Your task to perform on an android device: Check the news Image 0: 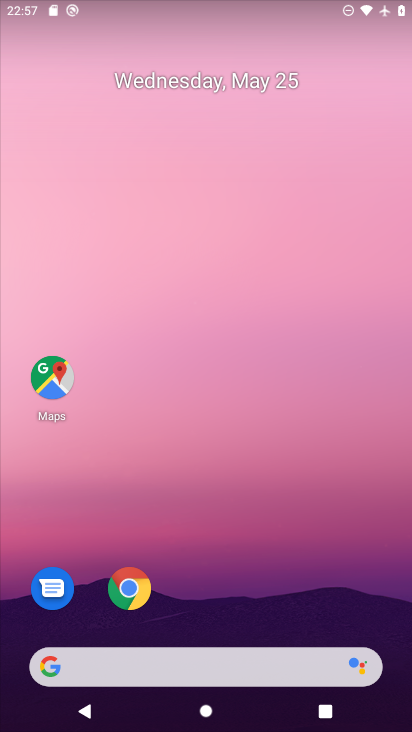
Step 0: click (136, 585)
Your task to perform on an android device: Check the news Image 1: 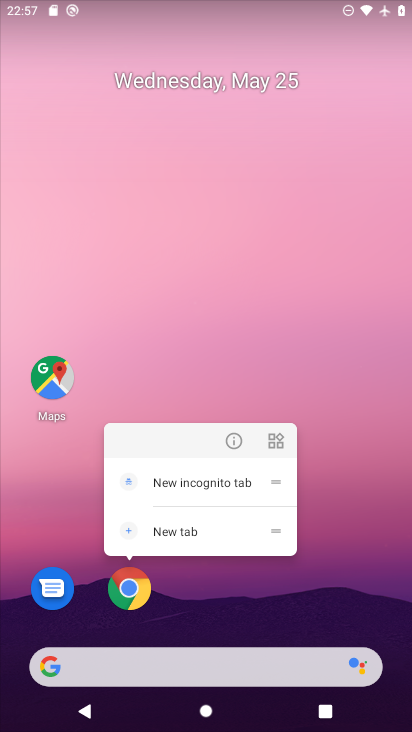
Step 1: click (129, 590)
Your task to perform on an android device: Check the news Image 2: 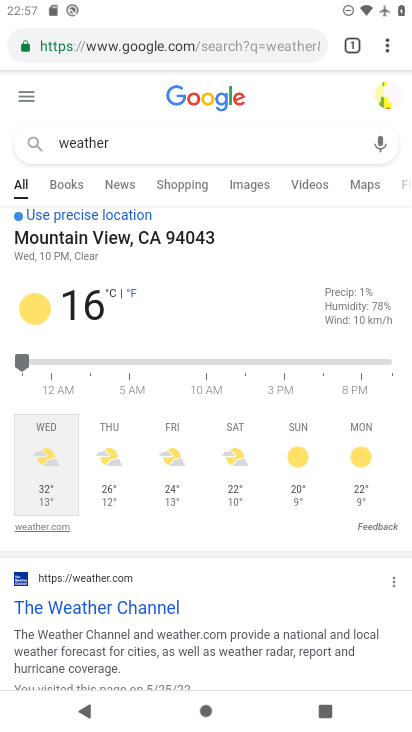
Step 2: click (159, 49)
Your task to perform on an android device: Check the news Image 3: 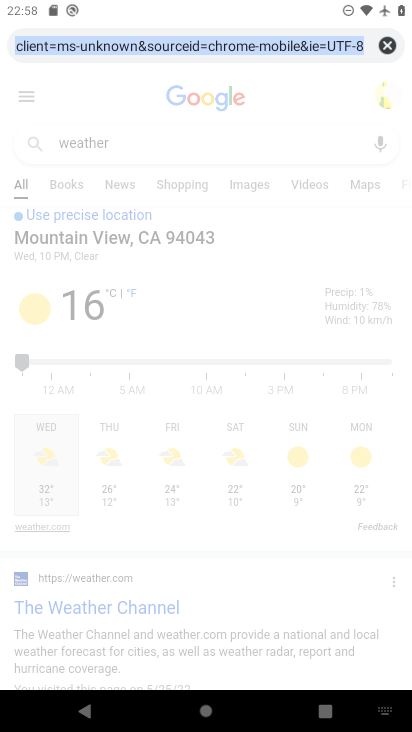
Step 3: type "news"
Your task to perform on an android device: Check the news Image 4: 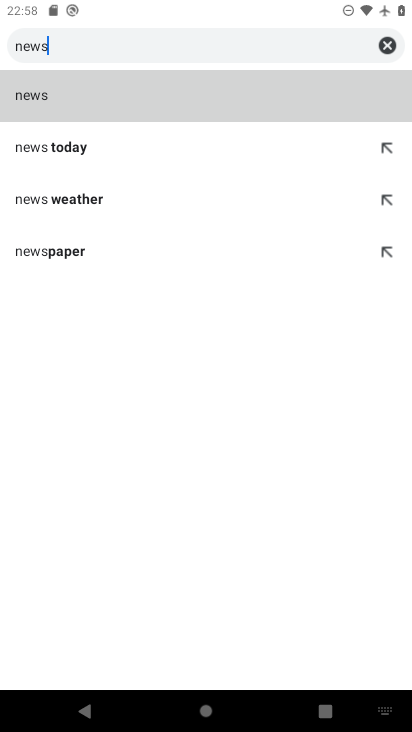
Step 4: click (36, 70)
Your task to perform on an android device: Check the news Image 5: 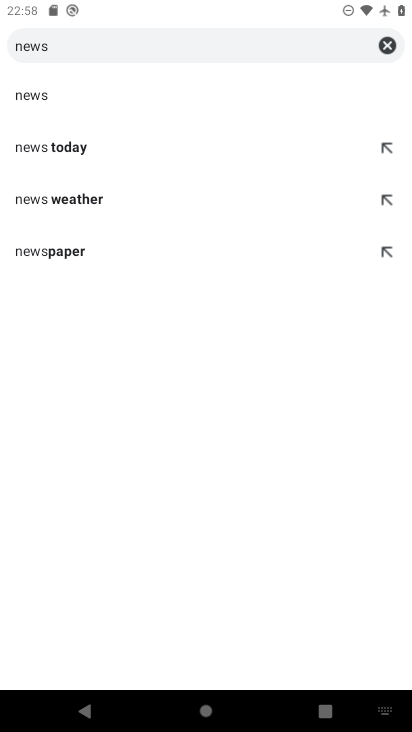
Step 5: click (20, 87)
Your task to perform on an android device: Check the news Image 6: 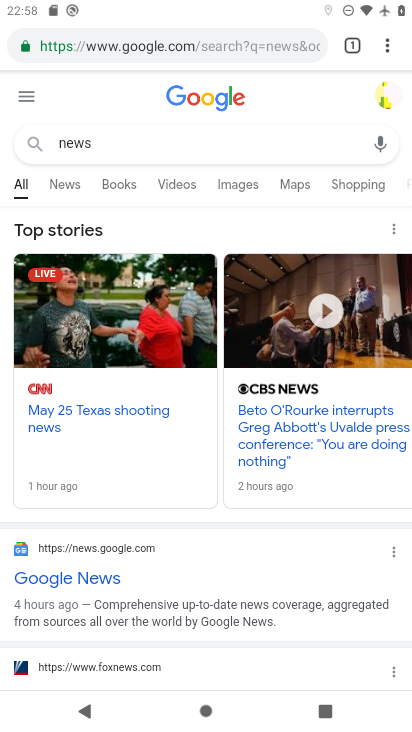
Step 6: click (70, 186)
Your task to perform on an android device: Check the news Image 7: 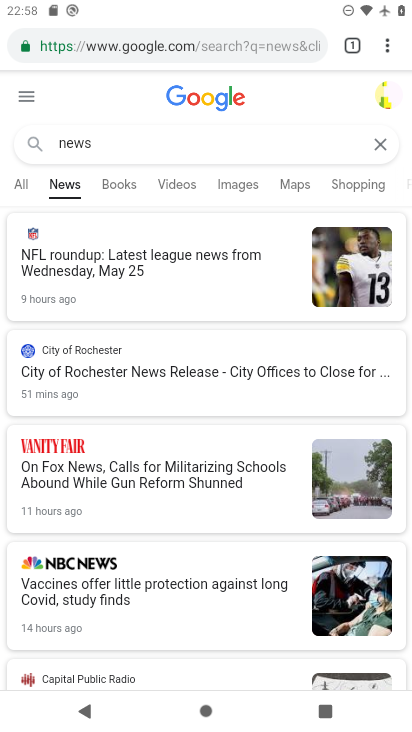
Step 7: task complete